Your task to perform on an android device: turn off sleep mode Image 0: 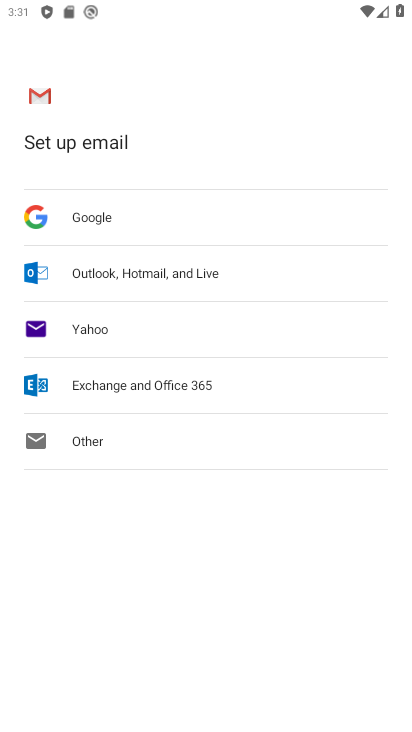
Step 0: press back button
Your task to perform on an android device: turn off sleep mode Image 1: 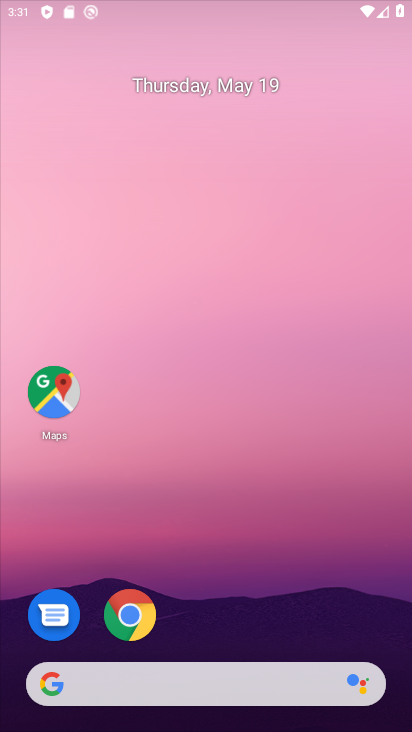
Step 1: drag from (215, 587) to (406, 23)
Your task to perform on an android device: turn off sleep mode Image 2: 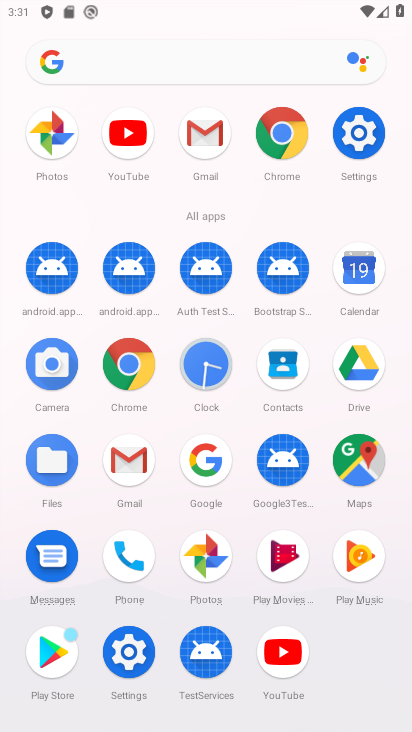
Step 2: click (364, 145)
Your task to perform on an android device: turn off sleep mode Image 3: 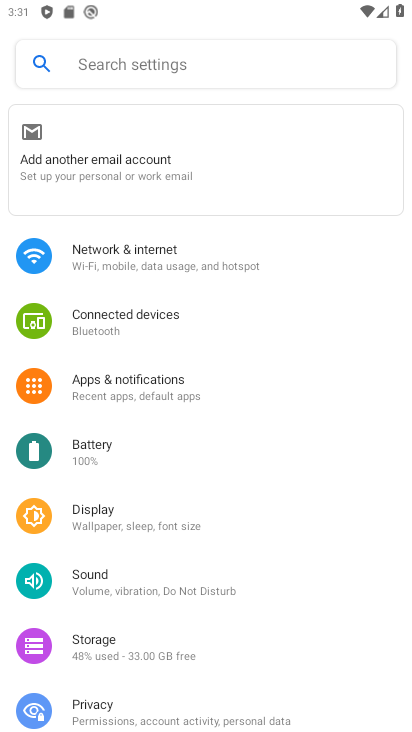
Step 3: click (98, 520)
Your task to perform on an android device: turn off sleep mode Image 4: 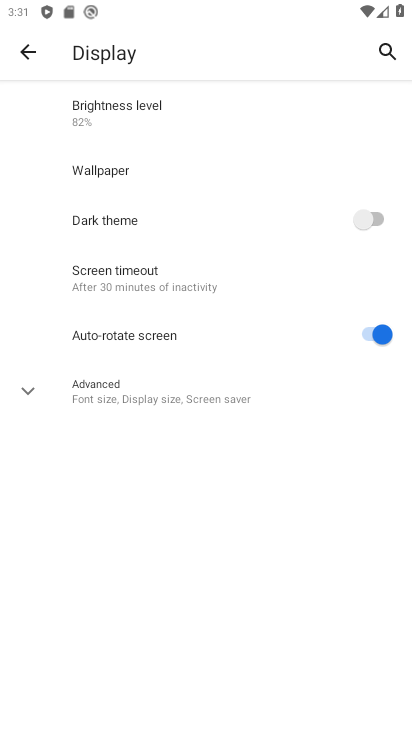
Step 4: task complete